Your task to perform on an android device: What is the news today? Image 0: 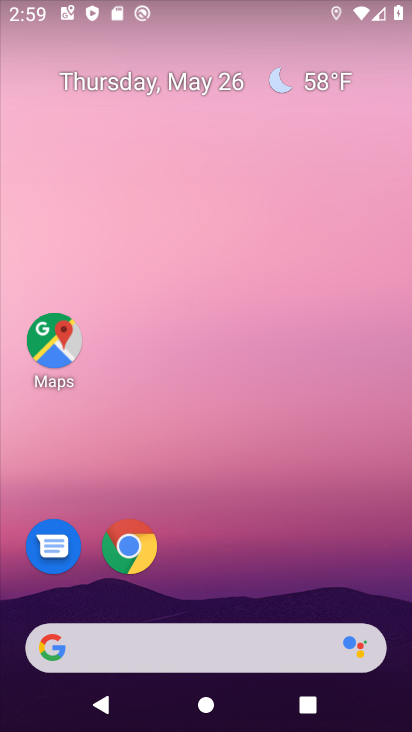
Step 0: drag from (237, 577) to (252, 222)
Your task to perform on an android device: What is the news today? Image 1: 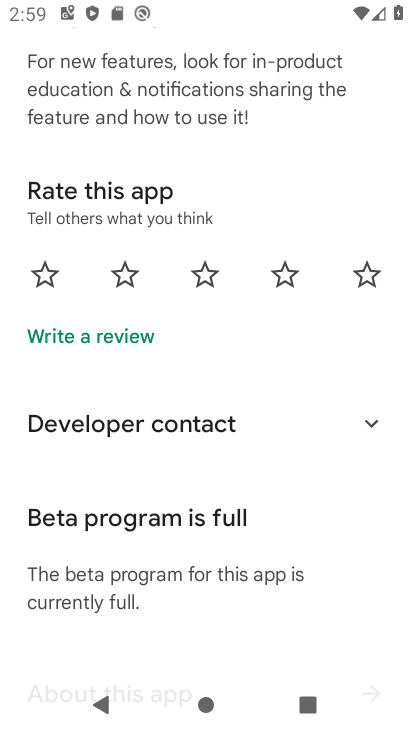
Step 1: task complete